Your task to perform on an android device: turn on translation in the chrome app Image 0: 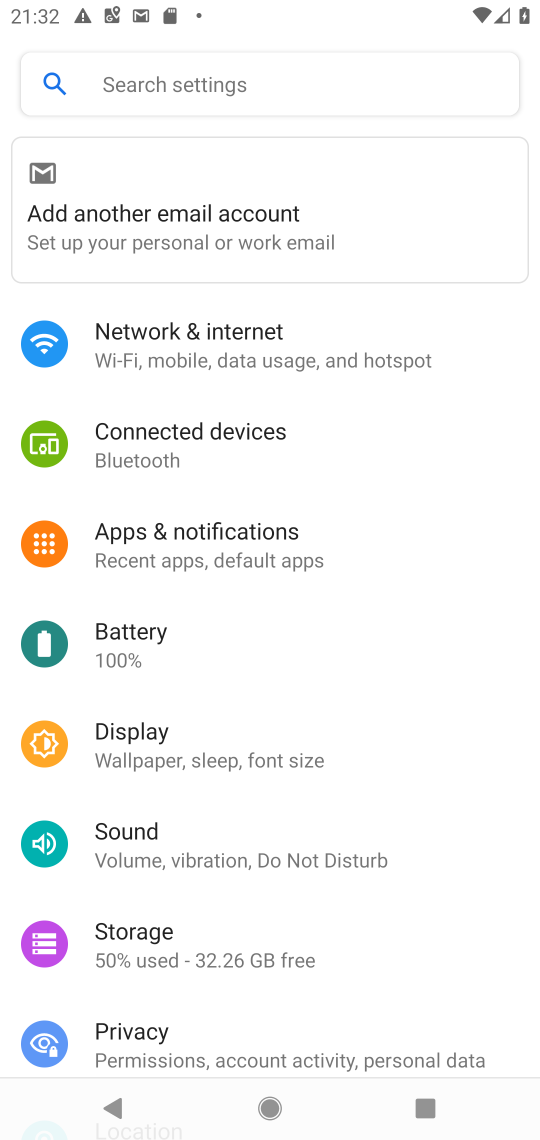
Step 0: press home button
Your task to perform on an android device: turn on translation in the chrome app Image 1: 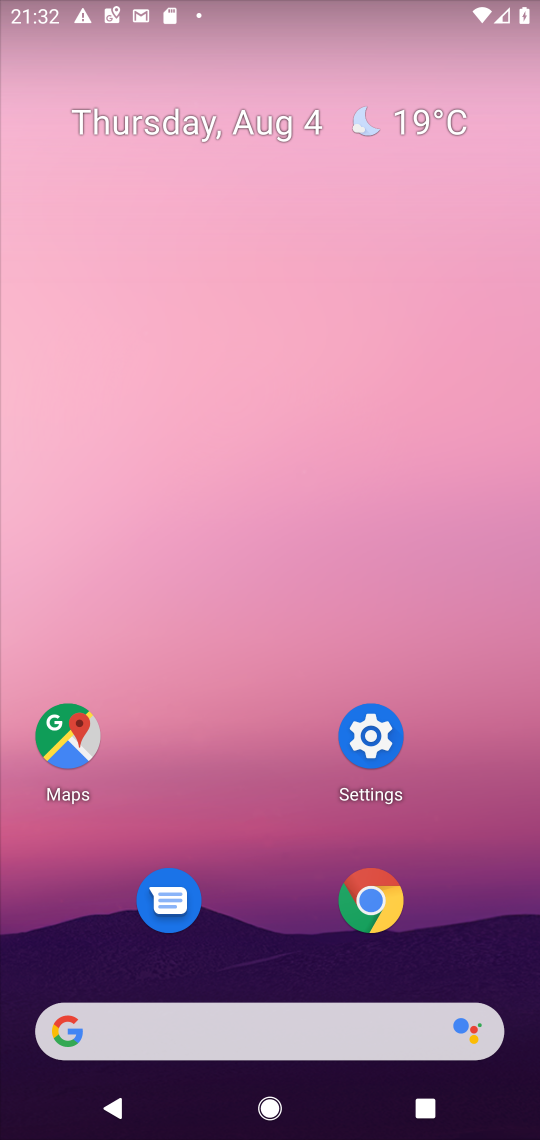
Step 1: click (363, 893)
Your task to perform on an android device: turn on translation in the chrome app Image 2: 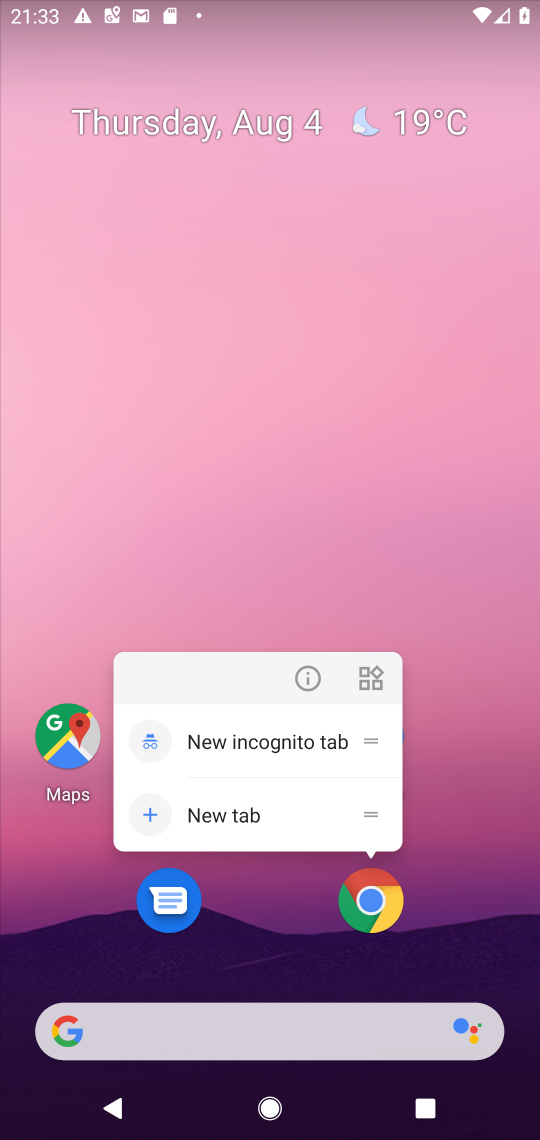
Step 2: click (375, 891)
Your task to perform on an android device: turn on translation in the chrome app Image 3: 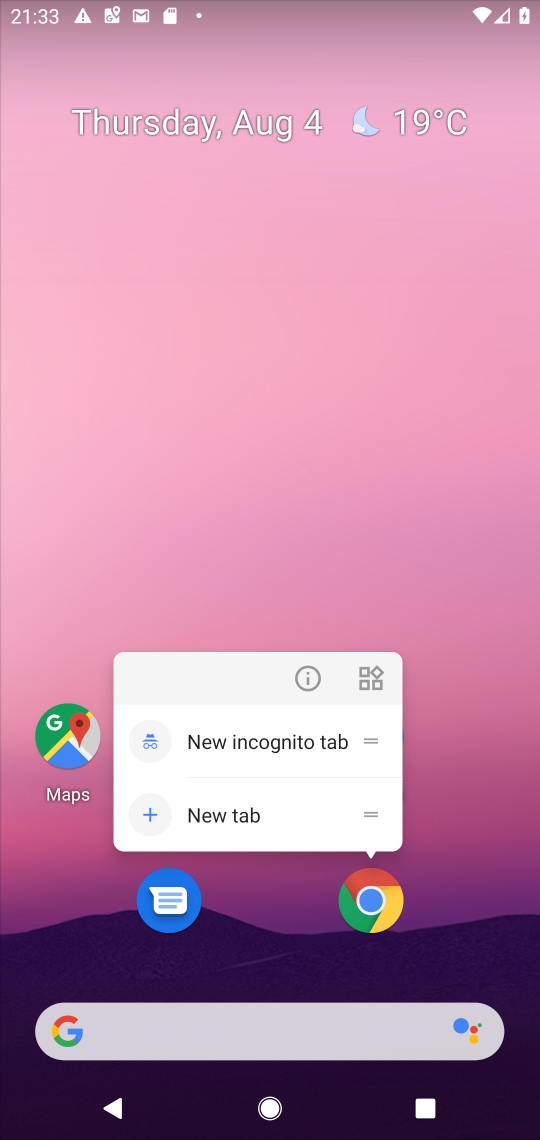
Step 3: click (372, 891)
Your task to perform on an android device: turn on translation in the chrome app Image 4: 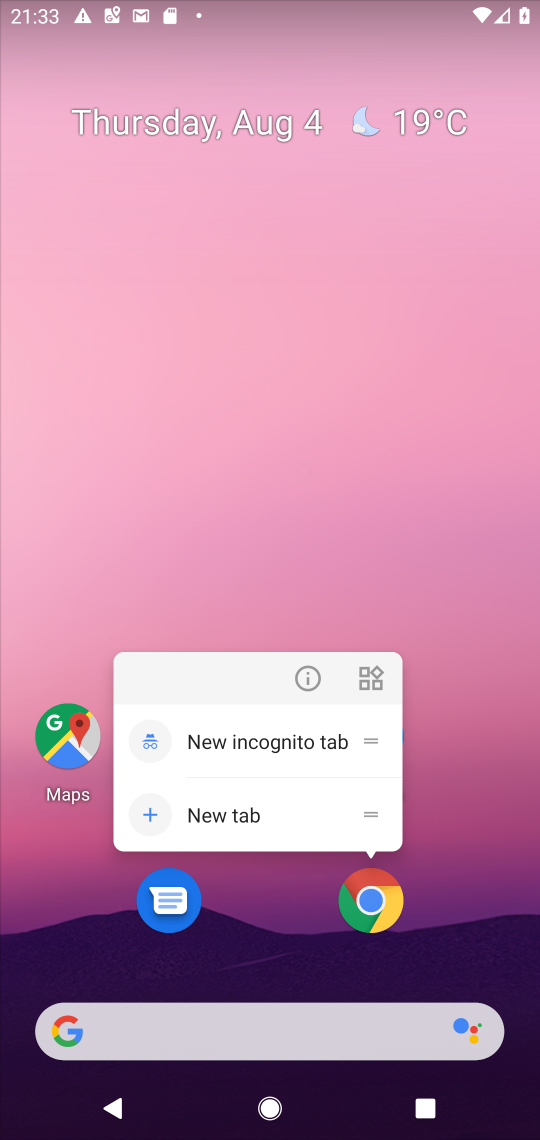
Step 4: click (372, 889)
Your task to perform on an android device: turn on translation in the chrome app Image 5: 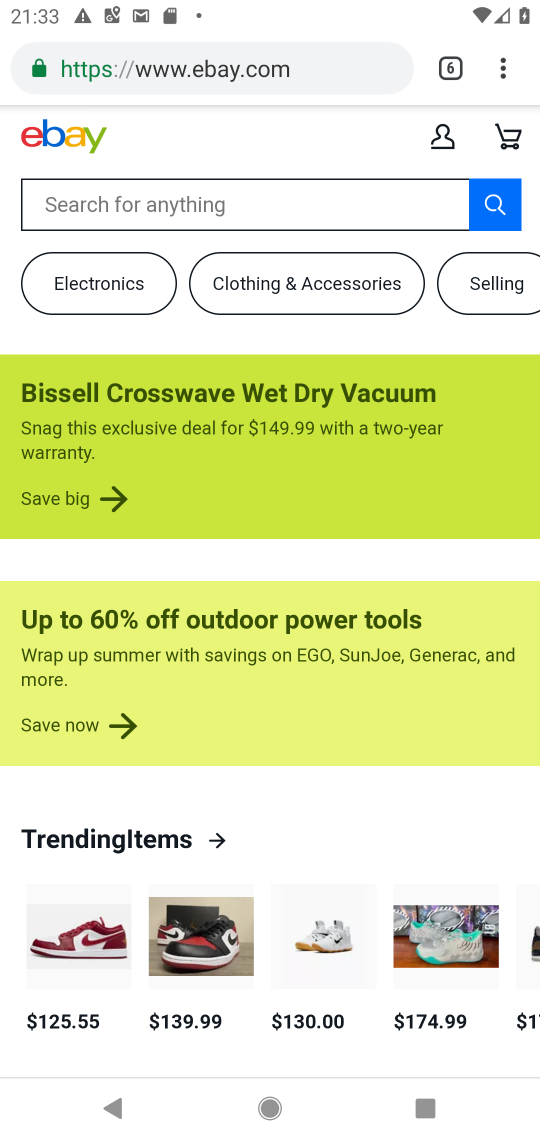
Step 5: drag from (508, 70) to (312, 885)
Your task to perform on an android device: turn on translation in the chrome app Image 6: 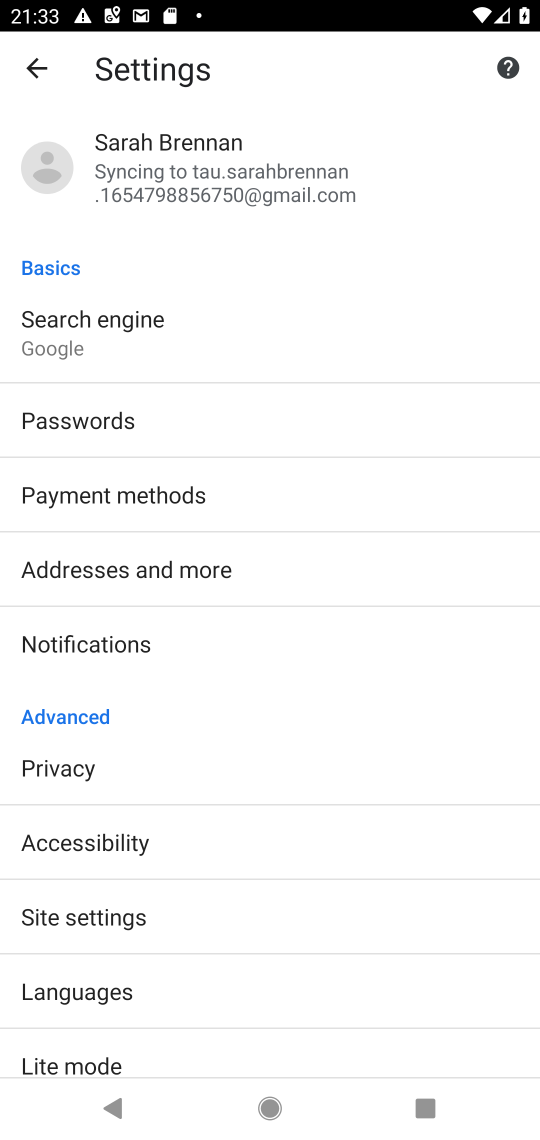
Step 6: drag from (228, 980) to (394, 481)
Your task to perform on an android device: turn on translation in the chrome app Image 7: 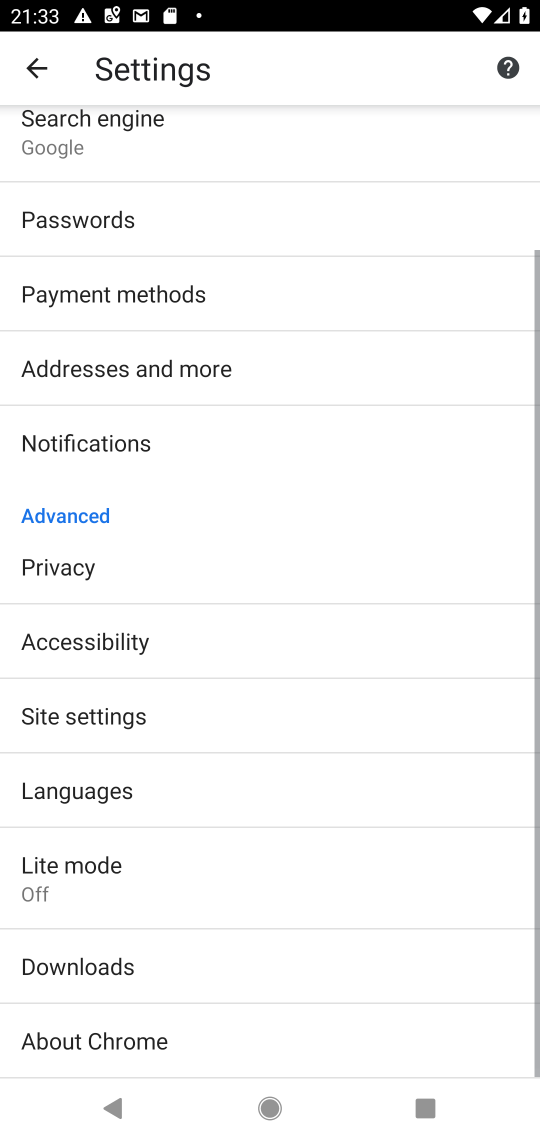
Step 7: click (148, 802)
Your task to perform on an android device: turn on translation in the chrome app Image 8: 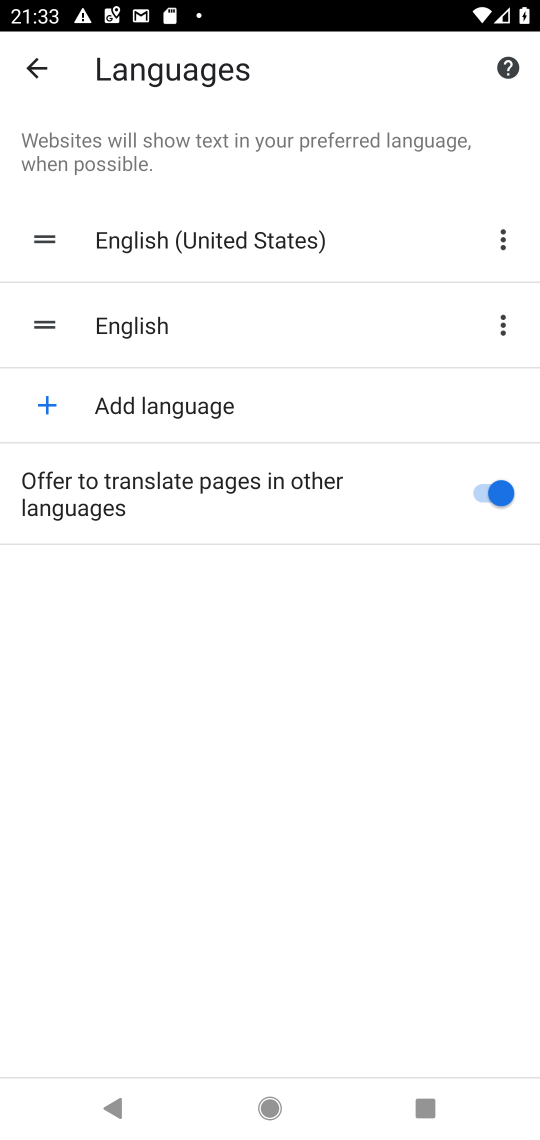
Step 8: task complete